Your task to perform on an android device: change the clock style Image 0: 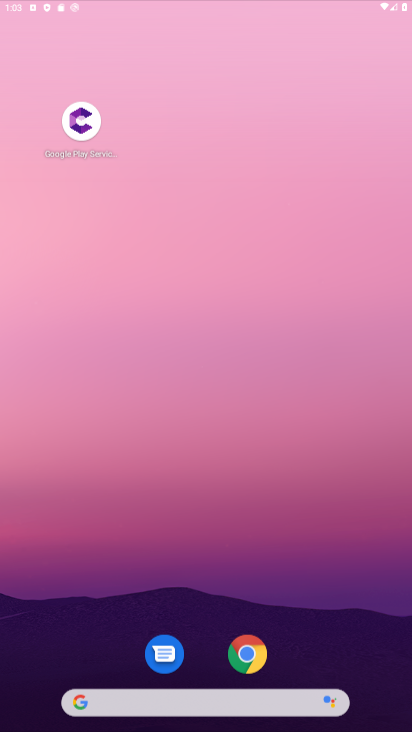
Step 0: press home button
Your task to perform on an android device: change the clock style Image 1: 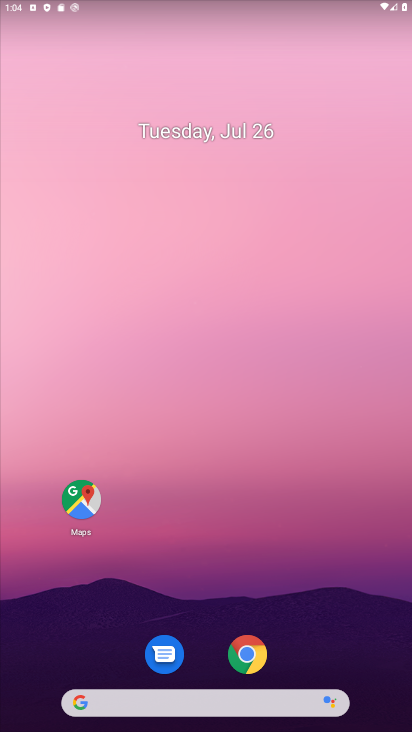
Step 1: drag from (279, 592) to (319, 102)
Your task to perform on an android device: change the clock style Image 2: 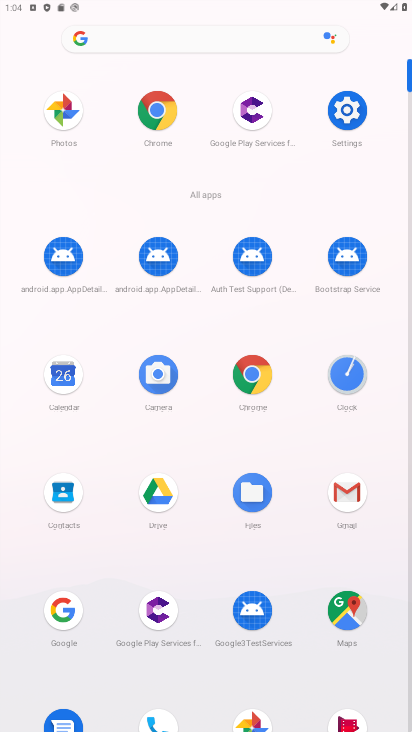
Step 2: drag from (360, 496) to (319, 653)
Your task to perform on an android device: change the clock style Image 3: 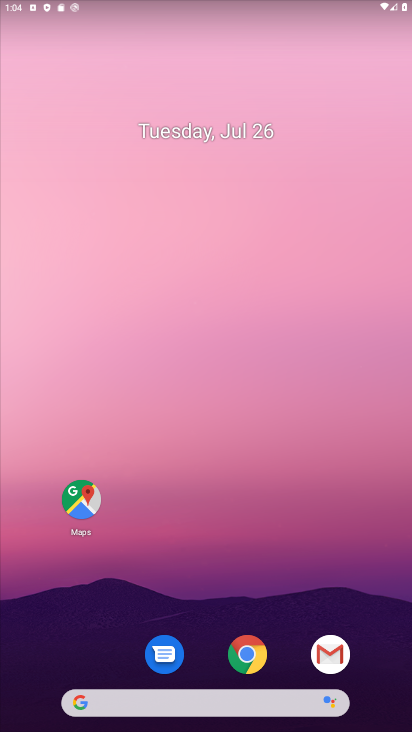
Step 3: click (339, 656)
Your task to perform on an android device: change the clock style Image 4: 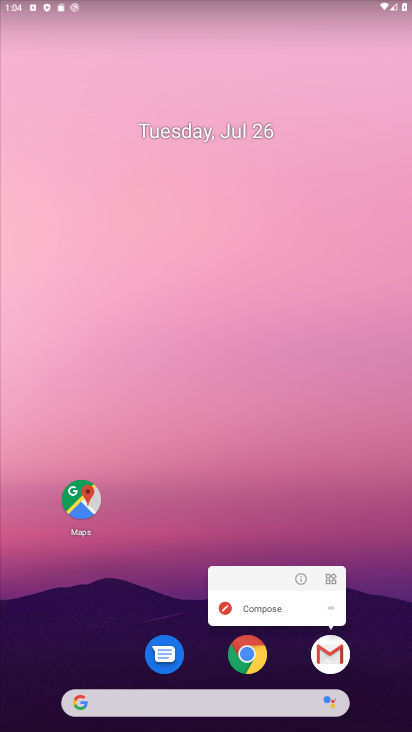
Step 4: click (339, 651)
Your task to perform on an android device: change the clock style Image 5: 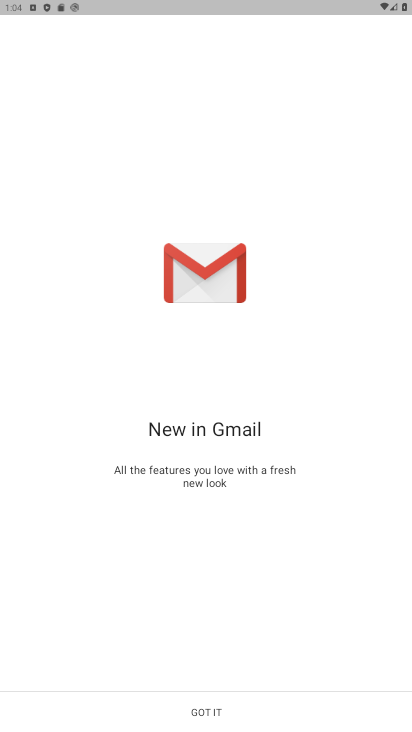
Step 5: press home button
Your task to perform on an android device: change the clock style Image 6: 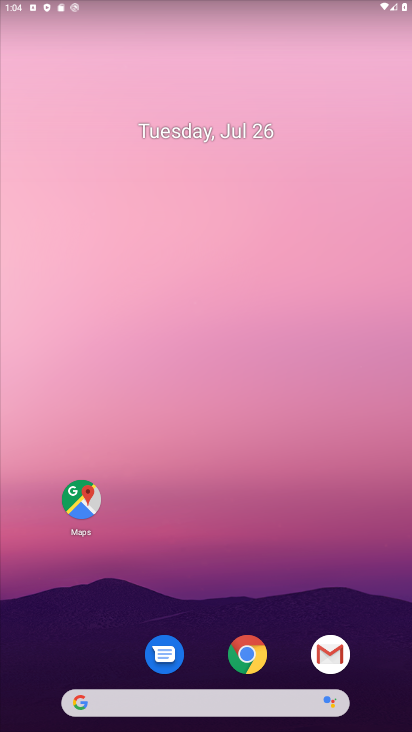
Step 6: drag from (265, 677) to (281, 201)
Your task to perform on an android device: change the clock style Image 7: 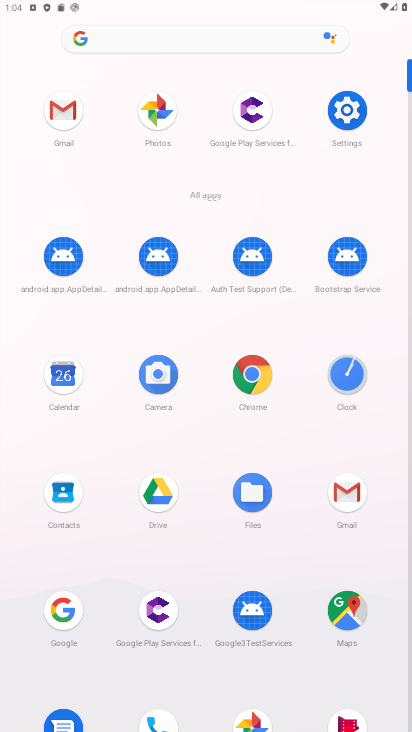
Step 7: click (346, 387)
Your task to perform on an android device: change the clock style Image 8: 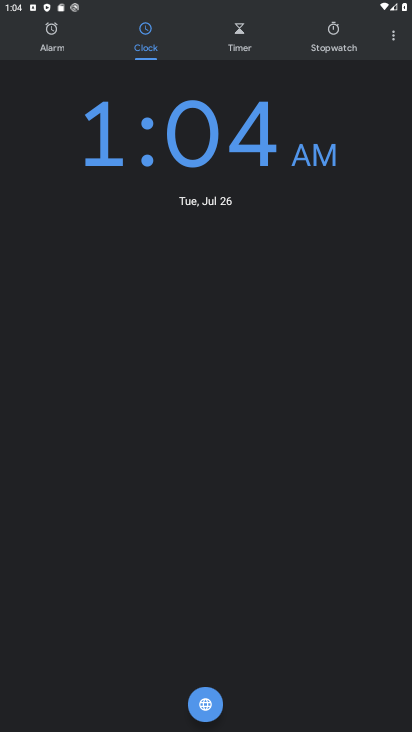
Step 8: click (386, 42)
Your task to perform on an android device: change the clock style Image 9: 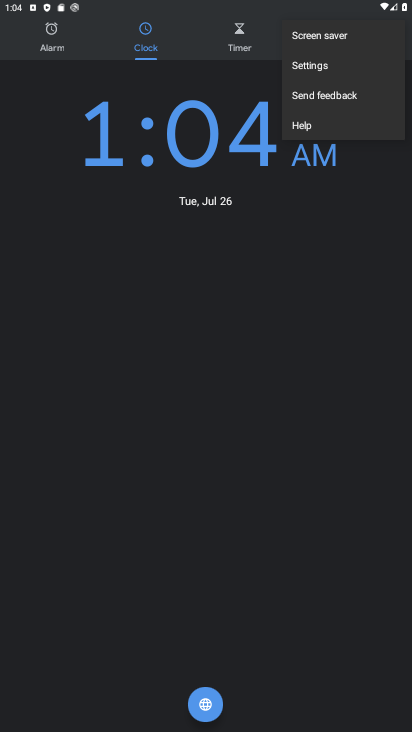
Step 9: click (294, 73)
Your task to perform on an android device: change the clock style Image 10: 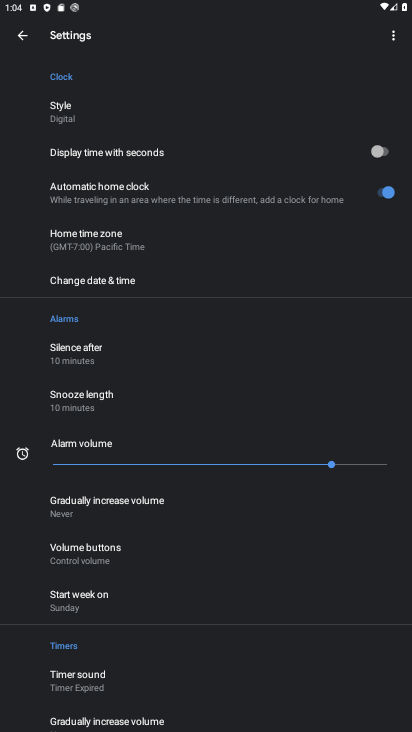
Step 10: click (108, 111)
Your task to perform on an android device: change the clock style Image 11: 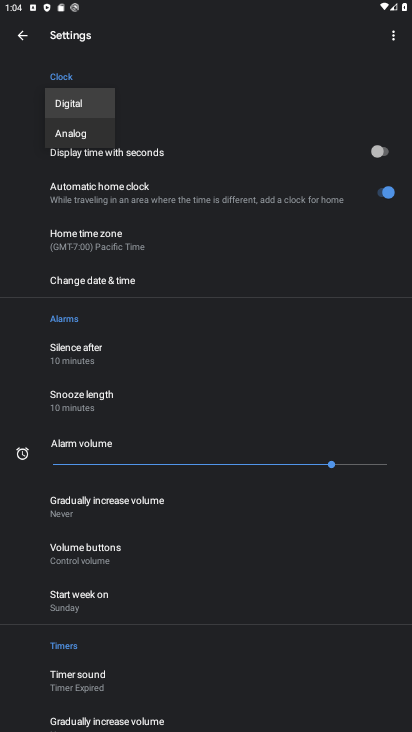
Step 11: click (84, 134)
Your task to perform on an android device: change the clock style Image 12: 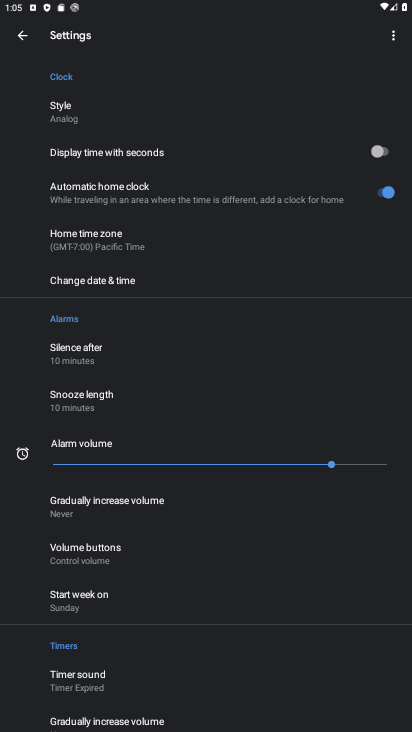
Step 12: task complete